Your task to perform on an android device: Go to battery settings Image 0: 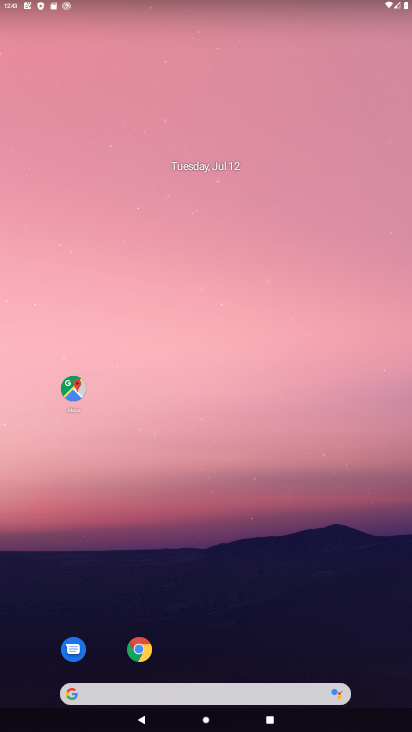
Step 0: drag from (262, 619) to (241, 57)
Your task to perform on an android device: Go to battery settings Image 1: 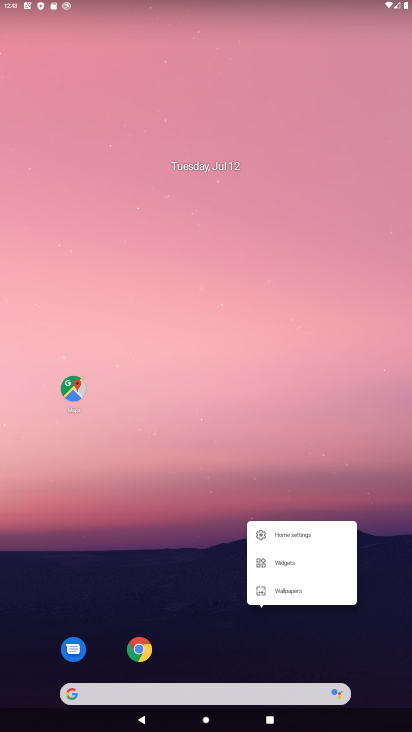
Step 1: click (190, 483)
Your task to perform on an android device: Go to battery settings Image 2: 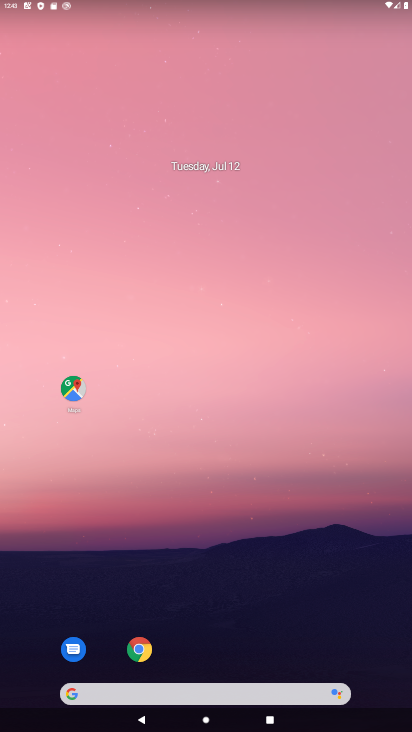
Step 2: drag from (188, 635) to (192, 79)
Your task to perform on an android device: Go to battery settings Image 3: 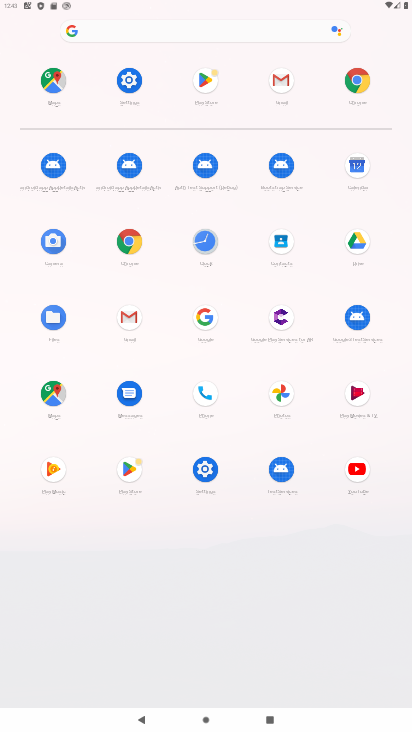
Step 3: click (121, 82)
Your task to perform on an android device: Go to battery settings Image 4: 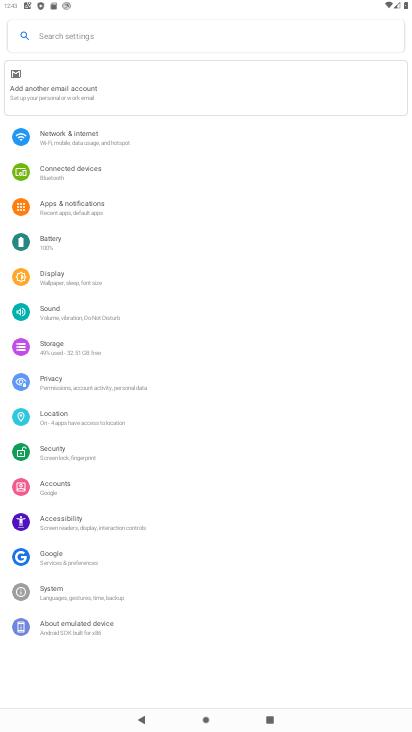
Step 4: click (106, 235)
Your task to perform on an android device: Go to battery settings Image 5: 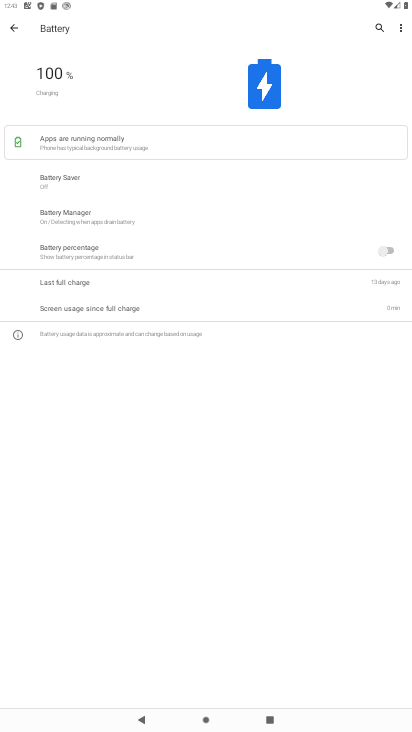
Step 5: task complete